Your task to perform on an android device: turn off picture-in-picture Image 0: 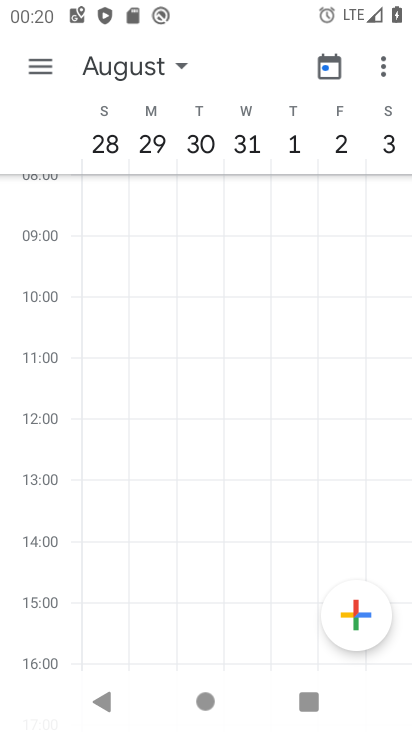
Step 0: press home button
Your task to perform on an android device: turn off picture-in-picture Image 1: 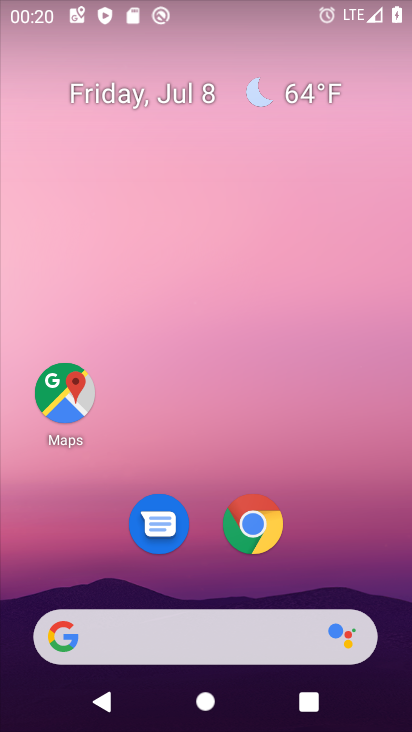
Step 1: click (265, 525)
Your task to perform on an android device: turn off picture-in-picture Image 2: 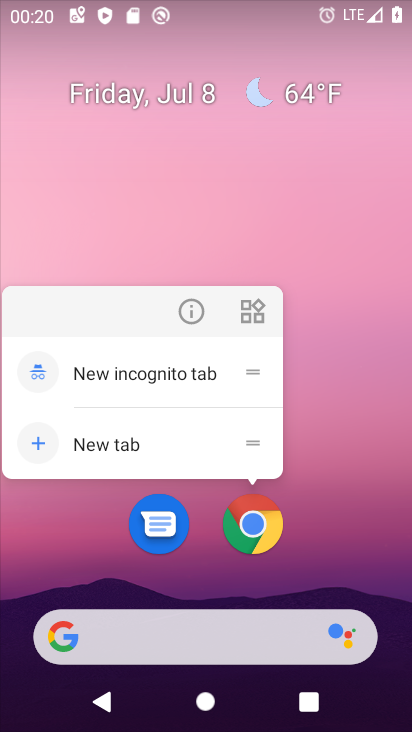
Step 2: click (190, 311)
Your task to perform on an android device: turn off picture-in-picture Image 3: 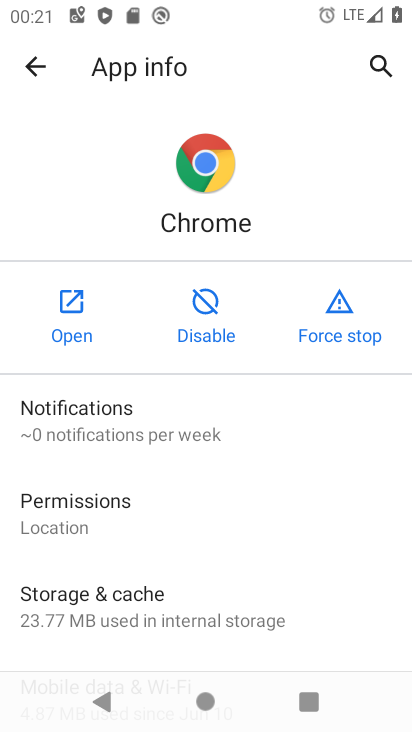
Step 3: drag from (206, 554) to (276, 218)
Your task to perform on an android device: turn off picture-in-picture Image 4: 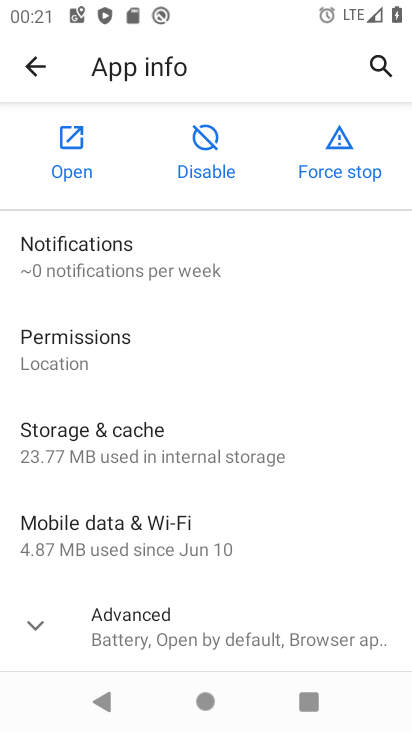
Step 4: click (39, 627)
Your task to perform on an android device: turn off picture-in-picture Image 5: 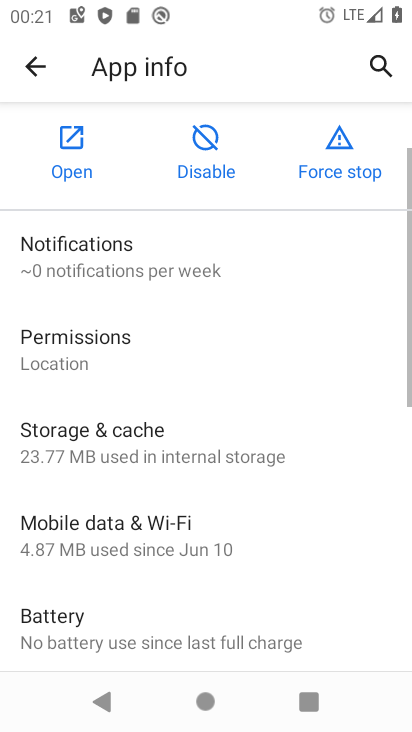
Step 5: drag from (208, 585) to (258, 156)
Your task to perform on an android device: turn off picture-in-picture Image 6: 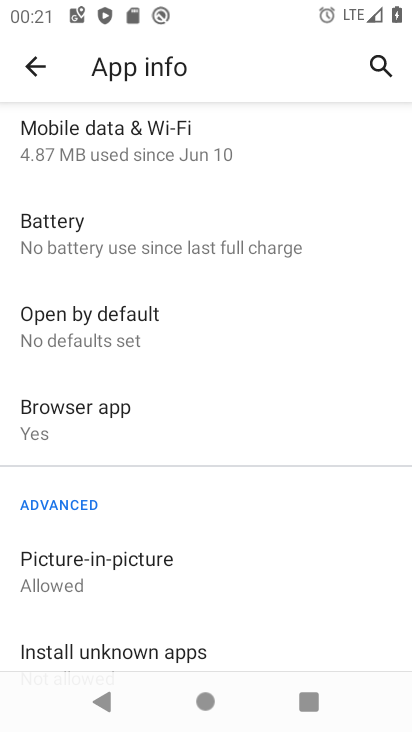
Step 6: click (133, 567)
Your task to perform on an android device: turn off picture-in-picture Image 7: 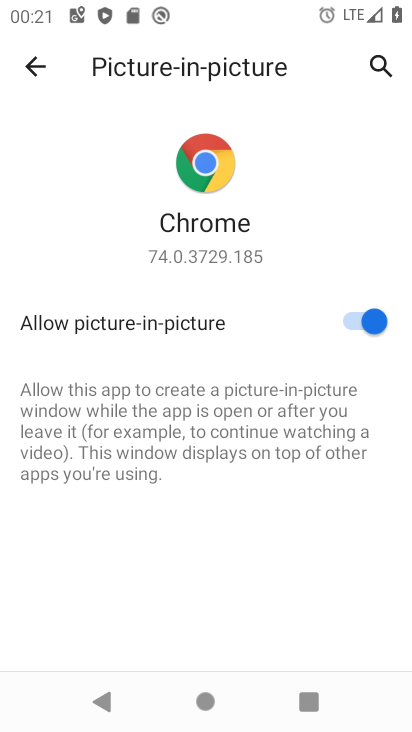
Step 7: click (371, 325)
Your task to perform on an android device: turn off picture-in-picture Image 8: 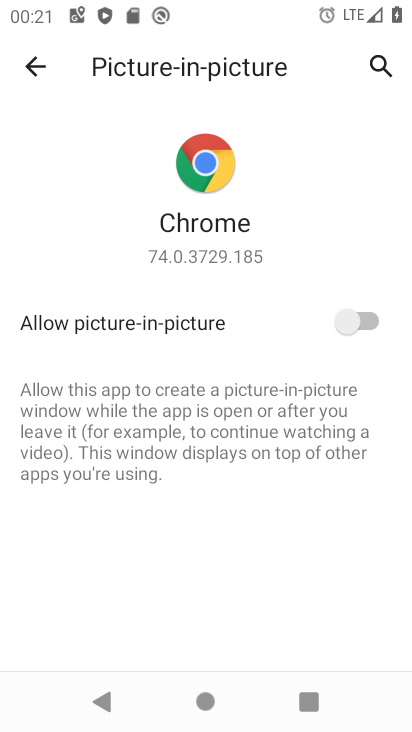
Step 8: task complete